Your task to perform on an android device: Open notification settings Image 0: 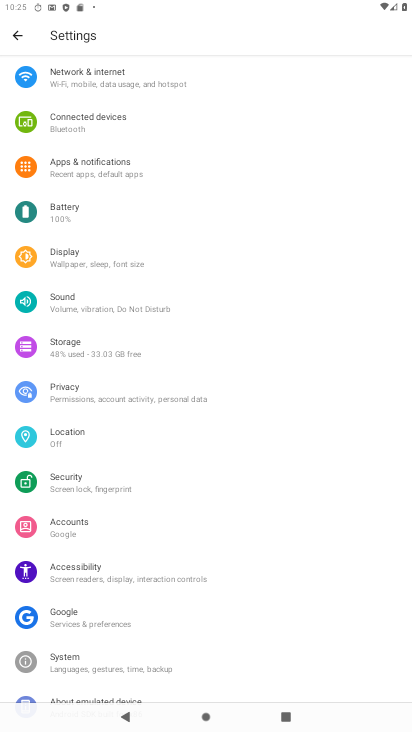
Step 0: click (151, 155)
Your task to perform on an android device: Open notification settings Image 1: 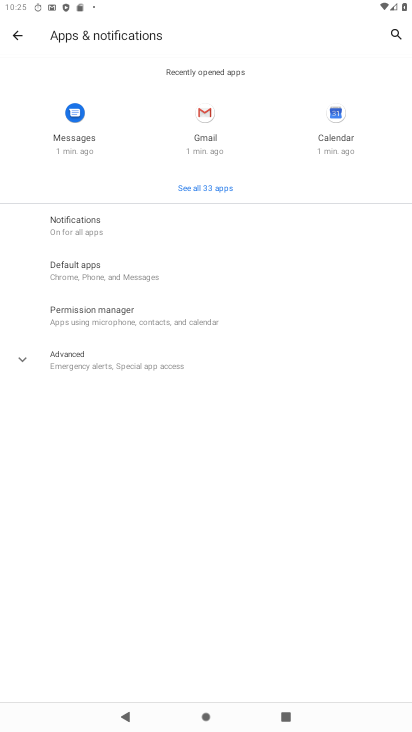
Step 1: click (115, 238)
Your task to perform on an android device: Open notification settings Image 2: 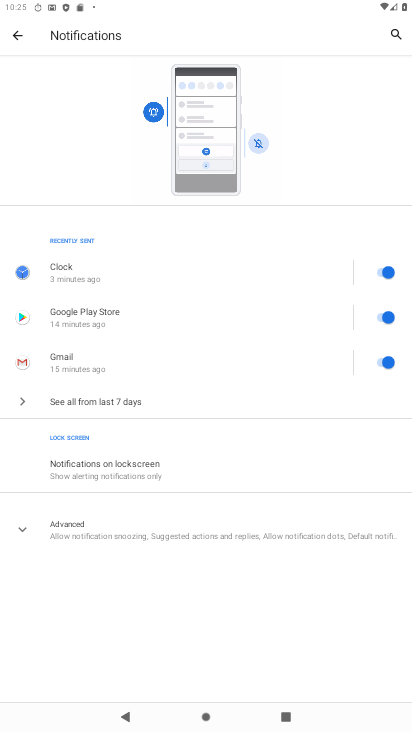
Step 2: task complete